Your task to perform on an android device: Go to Yahoo.com Image 0: 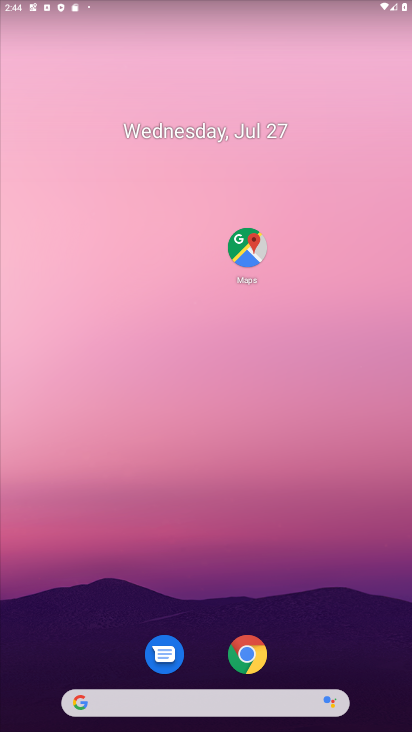
Step 0: click (254, 652)
Your task to perform on an android device: Go to Yahoo.com Image 1: 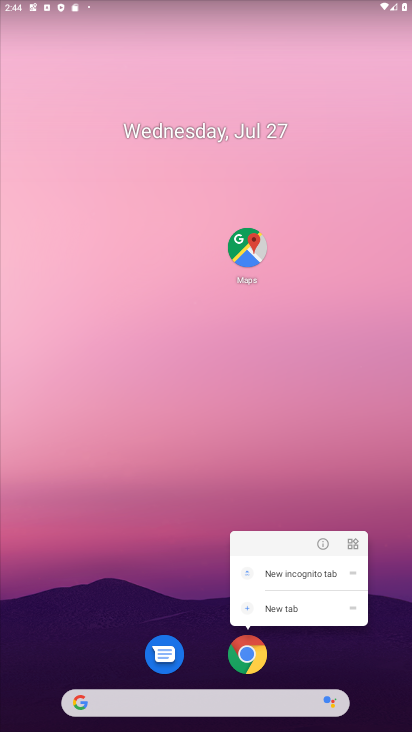
Step 1: click (254, 652)
Your task to perform on an android device: Go to Yahoo.com Image 2: 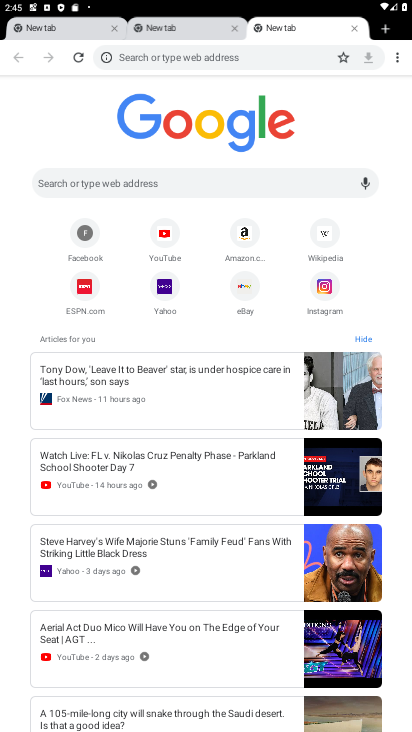
Step 2: click (161, 300)
Your task to perform on an android device: Go to Yahoo.com Image 3: 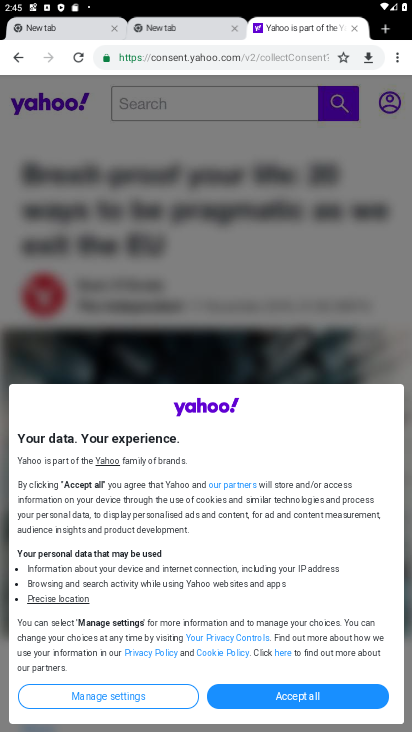
Step 3: click (297, 703)
Your task to perform on an android device: Go to Yahoo.com Image 4: 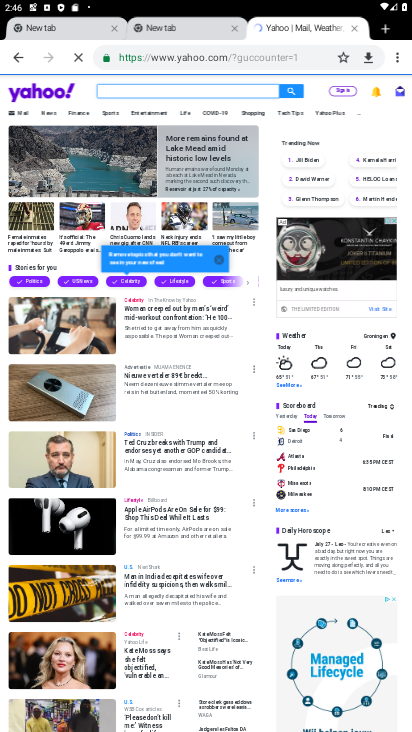
Step 4: task complete